Your task to perform on an android device: Open network settings Image 0: 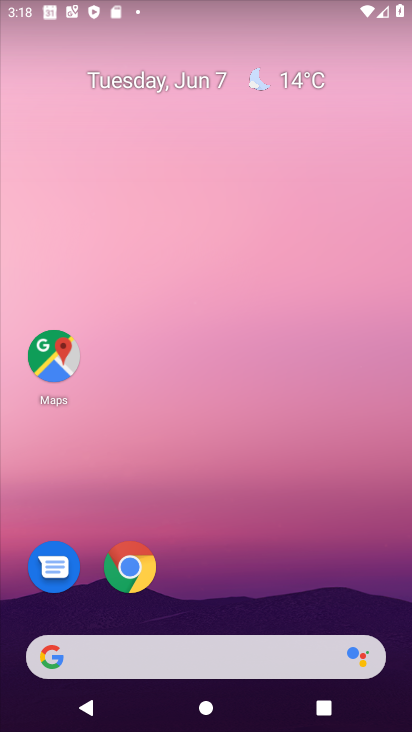
Step 0: drag from (203, 584) to (205, 156)
Your task to perform on an android device: Open network settings Image 1: 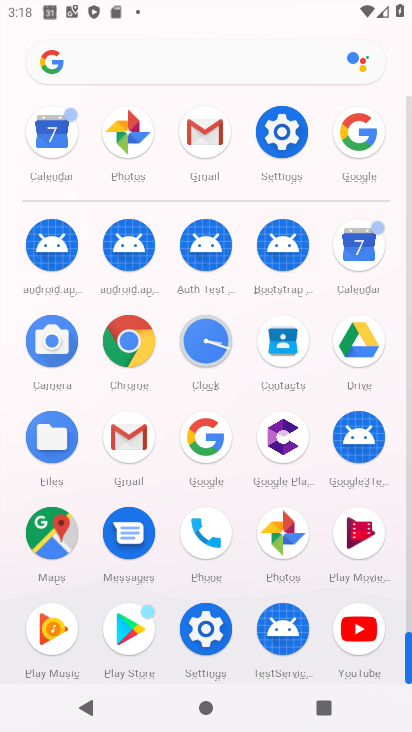
Step 1: click (299, 131)
Your task to perform on an android device: Open network settings Image 2: 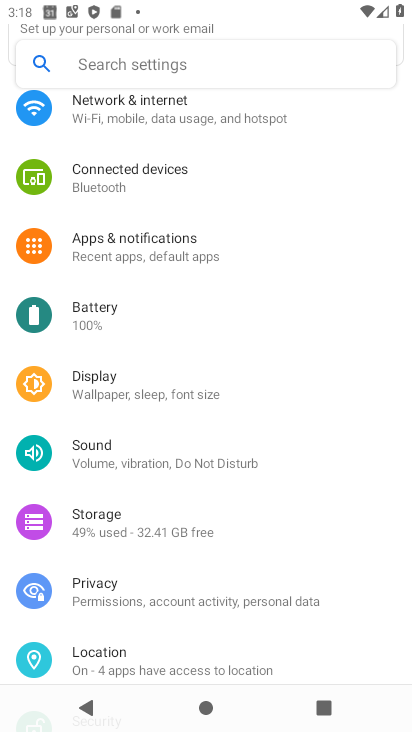
Step 2: click (152, 101)
Your task to perform on an android device: Open network settings Image 3: 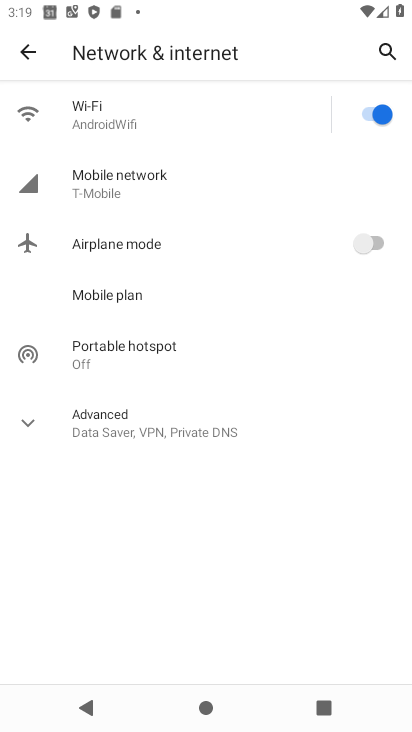
Step 3: click (183, 178)
Your task to perform on an android device: Open network settings Image 4: 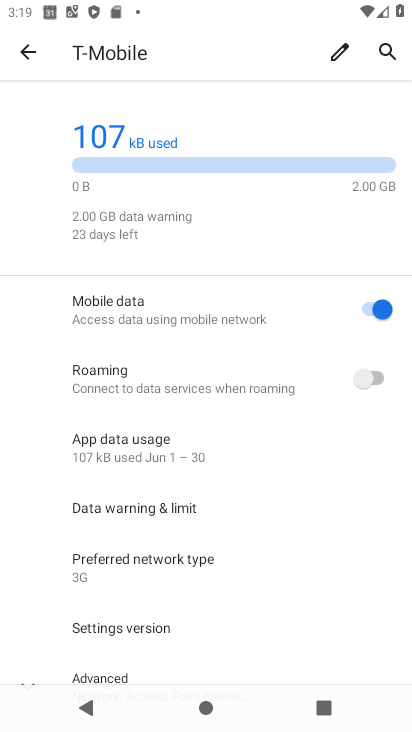
Step 4: task complete